Your task to perform on an android device: find which apps use the phone's location Image 0: 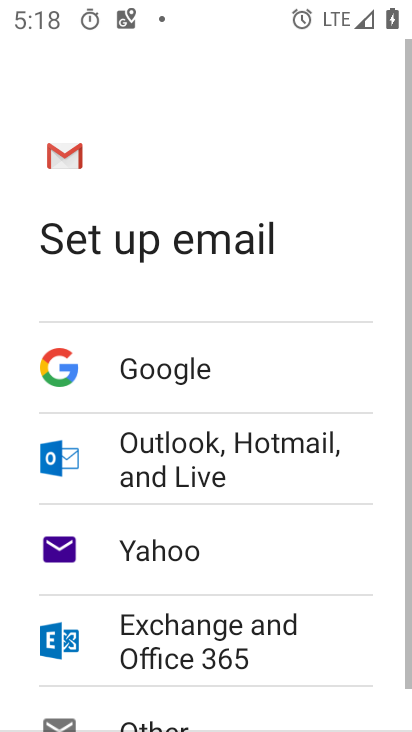
Step 0: press home button
Your task to perform on an android device: find which apps use the phone's location Image 1: 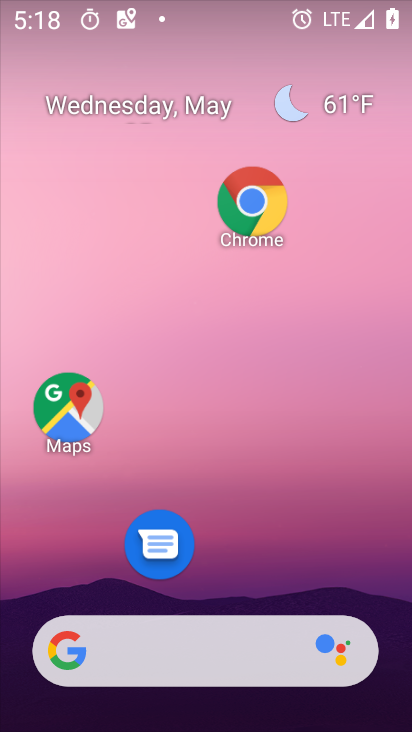
Step 1: drag from (202, 625) to (212, 219)
Your task to perform on an android device: find which apps use the phone's location Image 2: 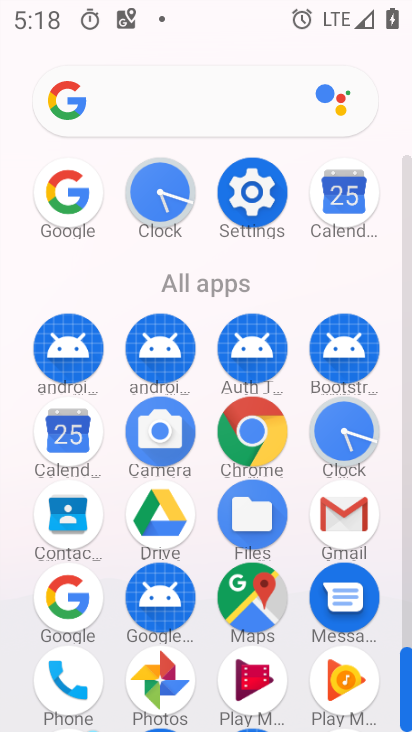
Step 2: click (269, 189)
Your task to perform on an android device: find which apps use the phone's location Image 3: 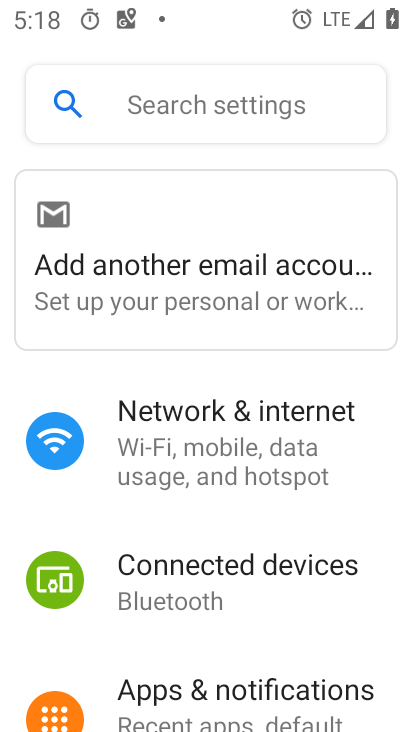
Step 3: drag from (222, 681) to (254, 326)
Your task to perform on an android device: find which apps use the phone's location Image 4: 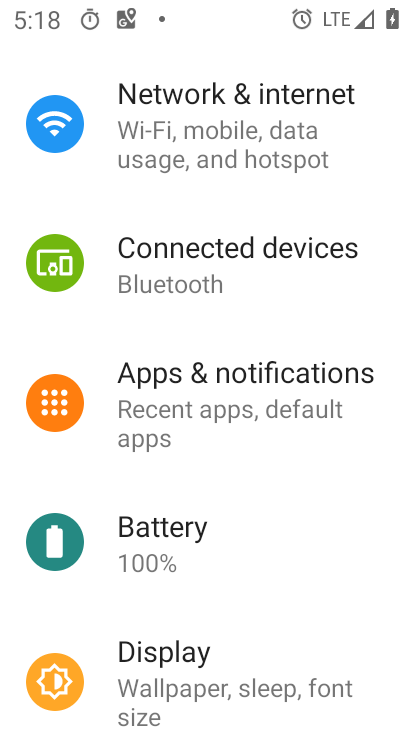
Step 4: drag from (282, 685) to (271, 352)
Your task to perform on an android device: find which apps use the phone's location Image 5: 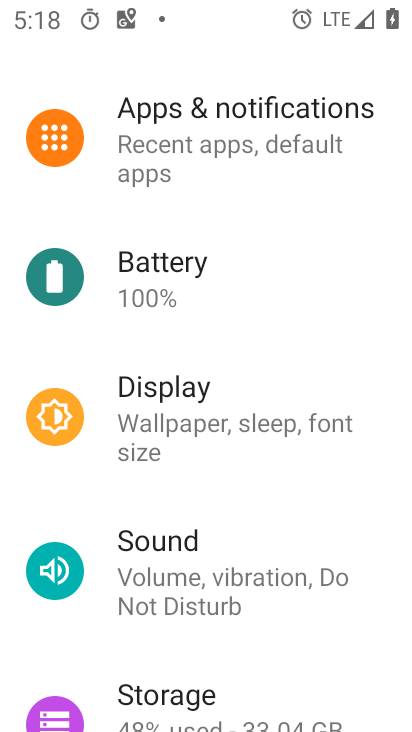
Step 5: drag from (204, 677) to (196, 288)
Your task to perform on an android device: find which apps use the phone's location Image 6: 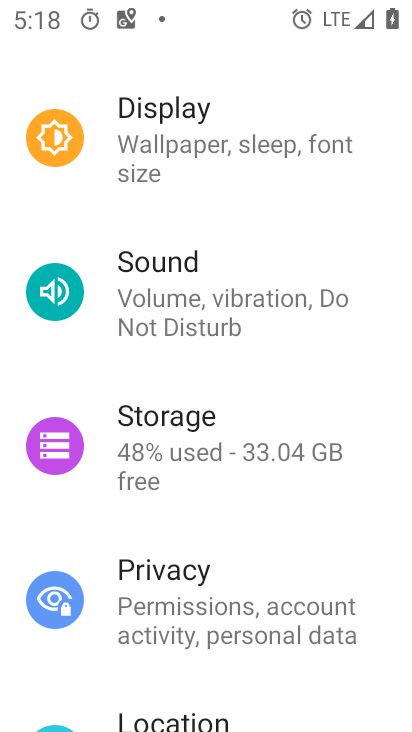
Step 6: drag from (202, 691) to (212, 413)
Your task to perform on an android device: find which apps use the phone's location Image 7: 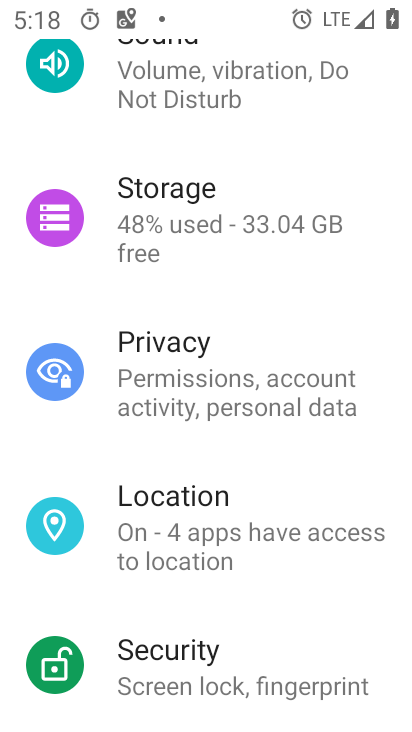
Step 7: click (174, 541)
Your task to perform on an android device: find which apps use the phone's location Image 8: 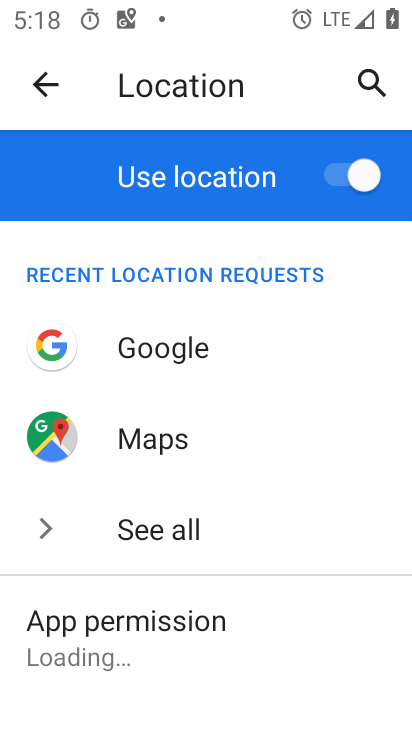
Step 8: drag from (230, 665) to (251, 329)
Your task to perform on an android device: find which apps use the phone's location Image 9: 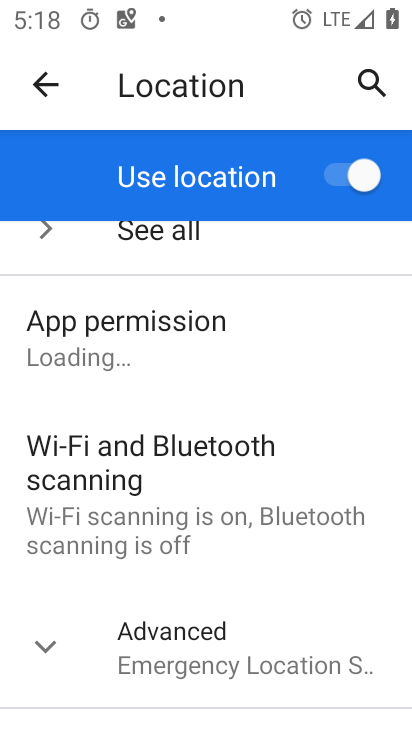
Step 9: click (134, 347)
Your task to perform on an android device: find which apps use the phone's location Image 10: 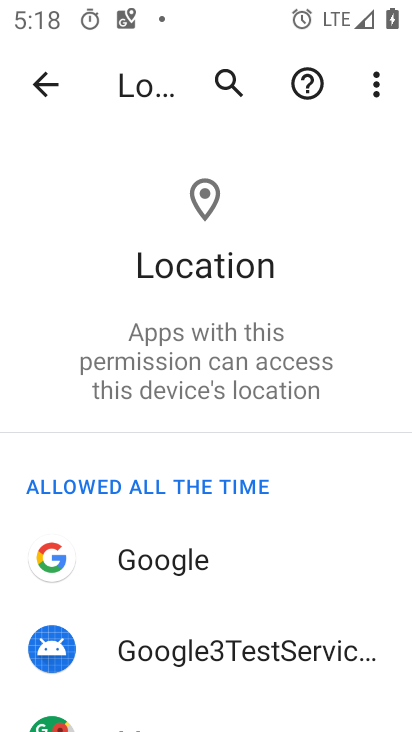
Step 10: task complete